Your task to perform on an android device: turn off sleep mode Image 0: 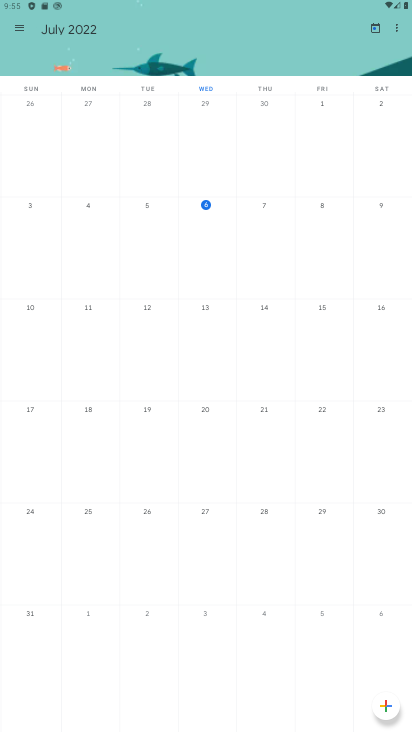
Step 0: press home button
Your task to perform on an android device: turn off sleep mode Image 1: 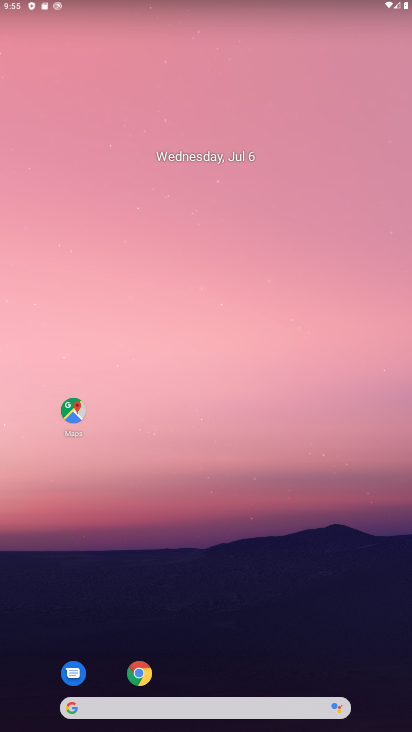
Step 1: drag from (182, 620) to (281, 92)
Your task to perform on an android device: turn off sleep mode Image 2: 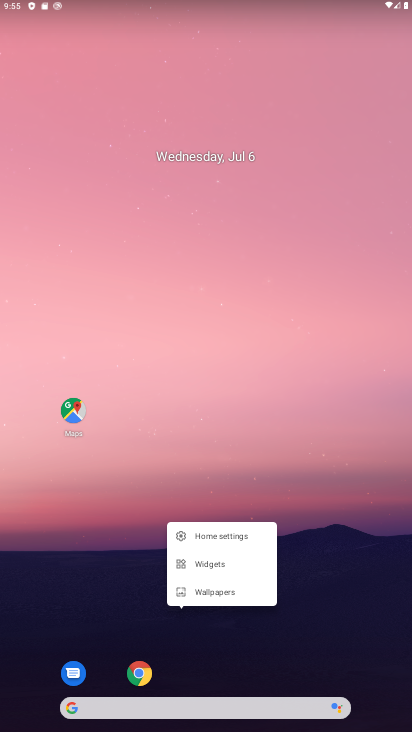
Step 2: drag from (172, 692) to (274, 57)
Your task to perform on an android device: turn off sleep mode Image 3: 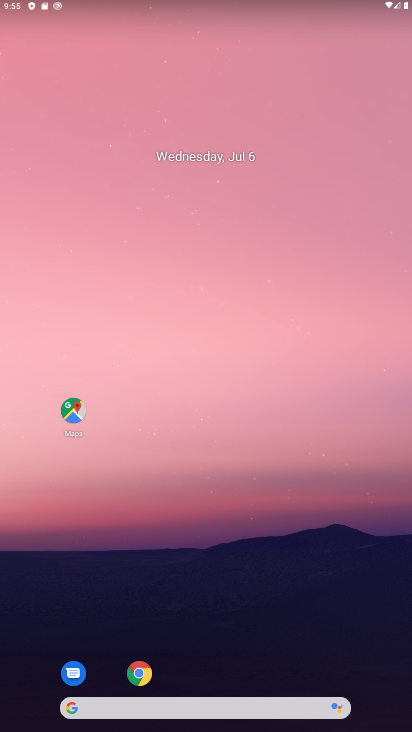
Step 3: drag from (264, 657) to (395, 395)
Your task to perform on an android device: turn off sleep mode Image 4: 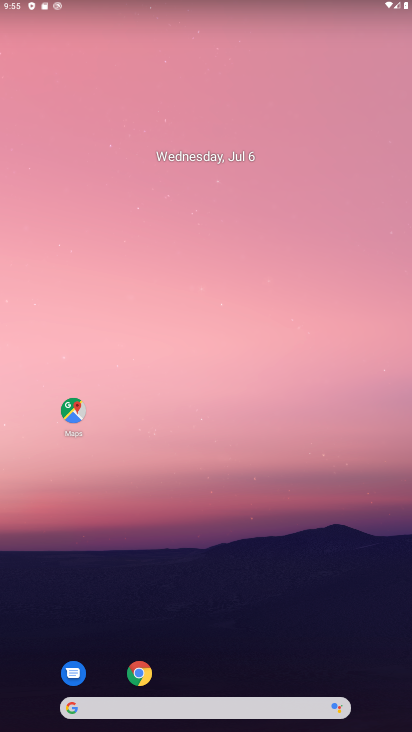
Step 4: drag from (143, 687) to (217, 160)
Your task to perform on an android device: turn off sleep mode Image 5: 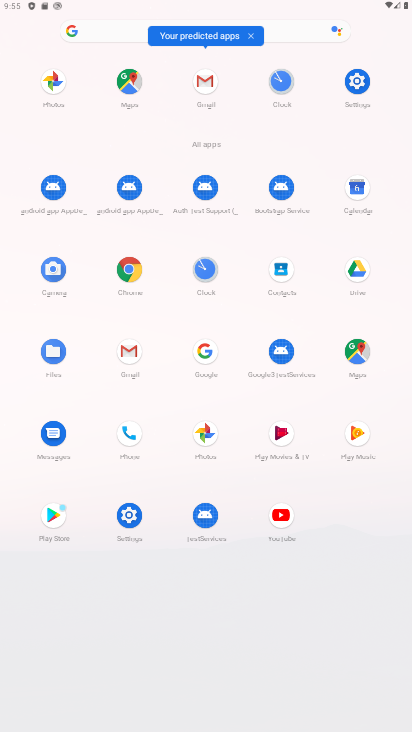
Step 5: click (126, 519)
Your task to perform on an android device: turn off sleep mode Image 6: 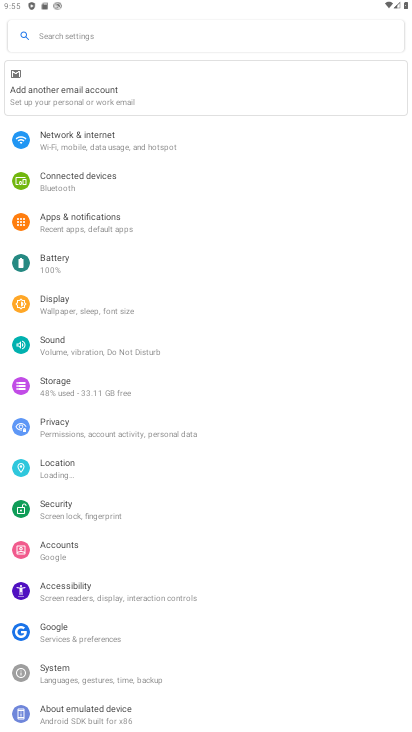
Step 6: click (87, 301)
Your task to perform on an android device: turn off sleep mode Image 7: 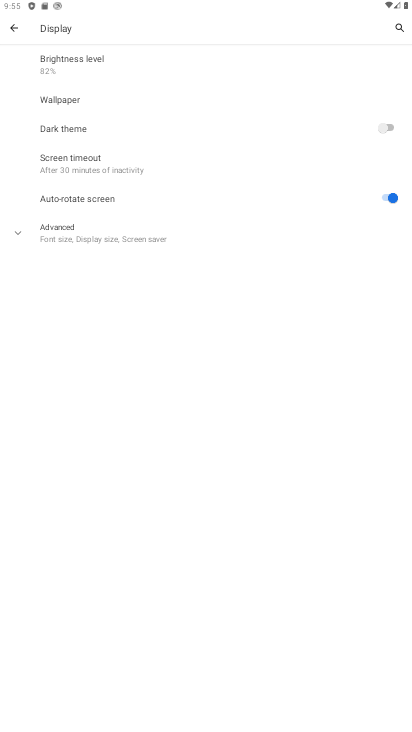
Step 7: click (113, 242)
Your task to perform on an android device: turn off sleep mode Image 8: 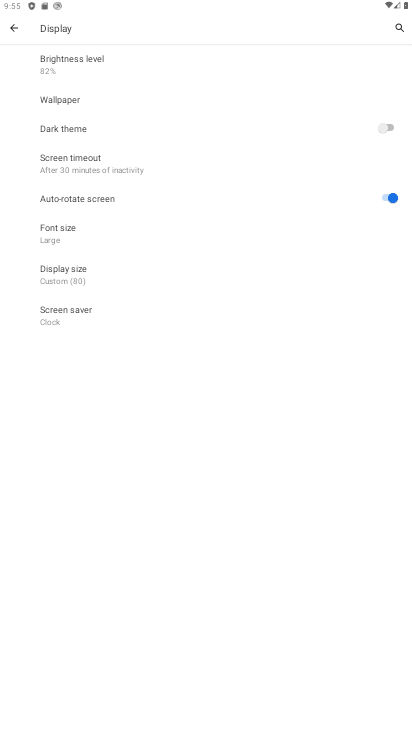
Step 8: task complete